Your task to perform on an android device: Open calendar and show me the second week of next month Image 0: 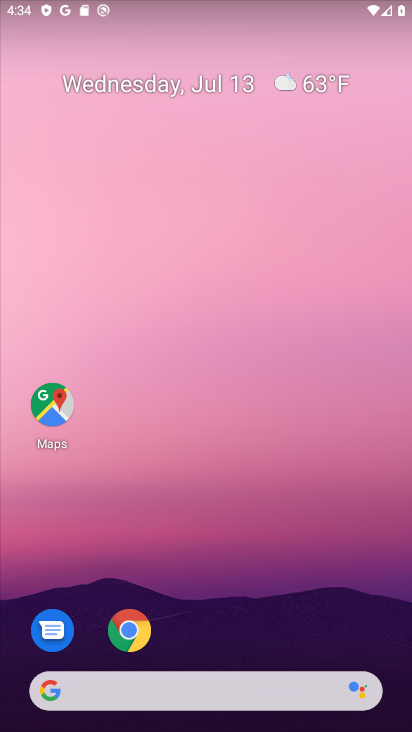
Step 0: drag from (272, 644) to (314, 190)
Your task to perform on an android device: Open calendar and show me the second week of next month Image 1: 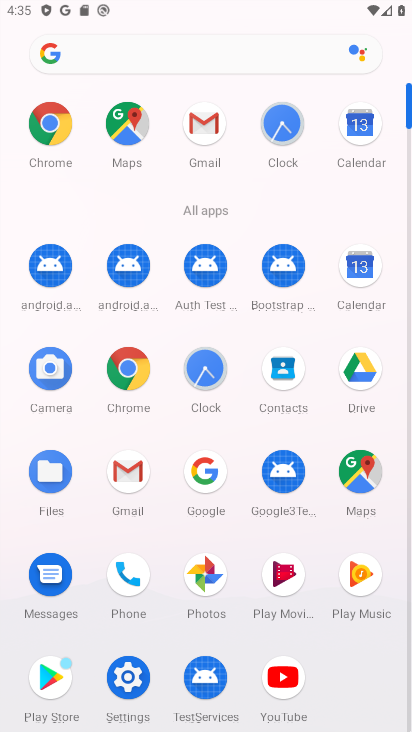
Step 1: click (362, 130)
Your task to perform on an android device: Open calendar and show me the second week of next month Image 2: 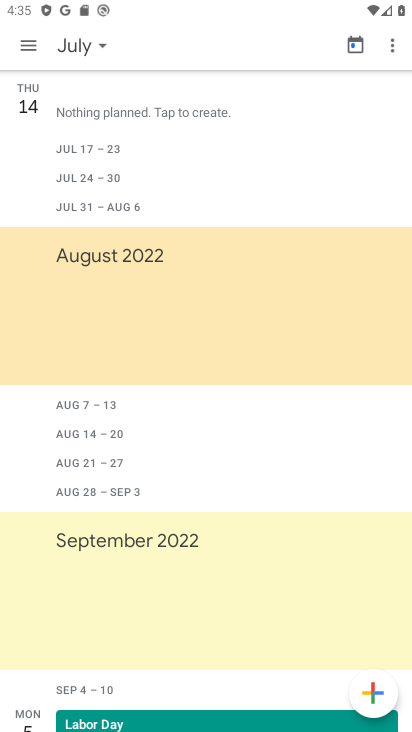
Step 2: click (94, 42)
Your task to perform on an android device: Open calendar and show me the second week of next month Image 3: 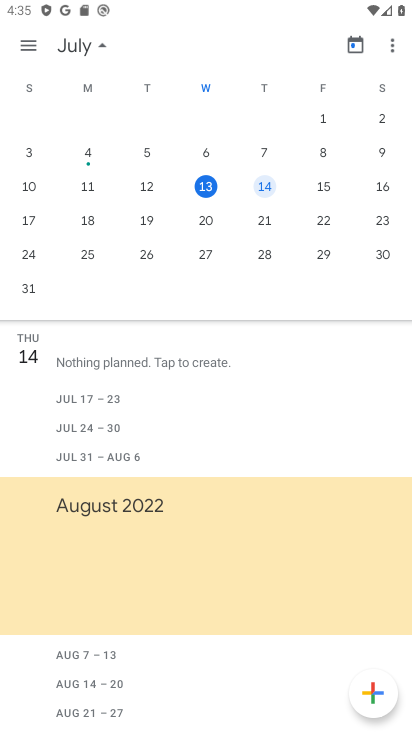
Step 3: drag from (344, 160) to (0, 158)
Your task to perform on an android device: Open calendar and show me the second week of next month Image 4: 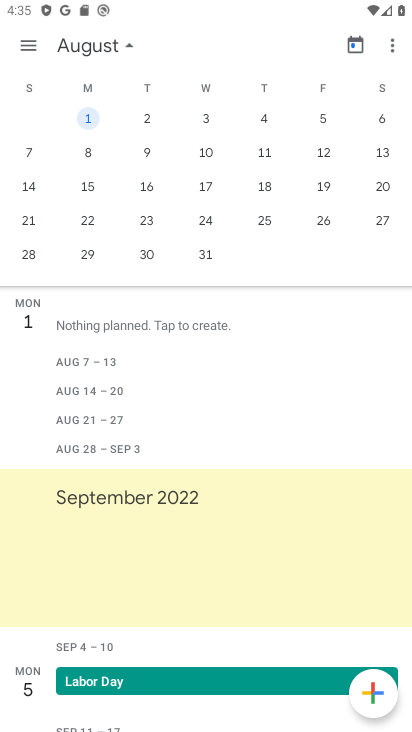
Step 4: click (260, 150)
Your task to perform on an android device: Open calendar and show me the second week of next month Image 5: 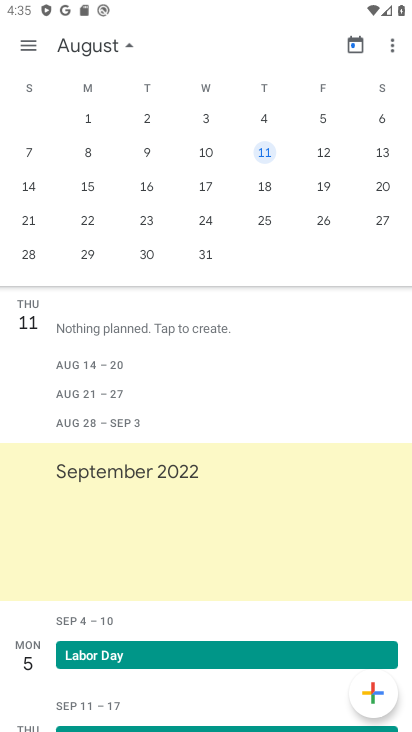
Step 5: task complete